Your task to perform on an android device: Open ESPN.com Image 0: 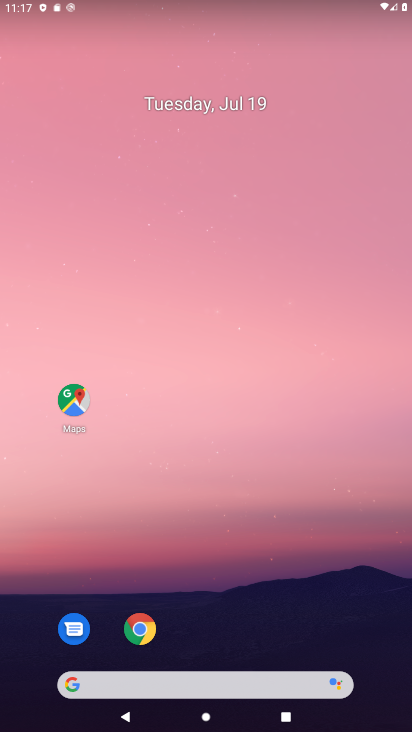
Step 0: drag from (316, 582) to (318, 82)
Your task to perform on an android device: Open ESPN.com Image 1: 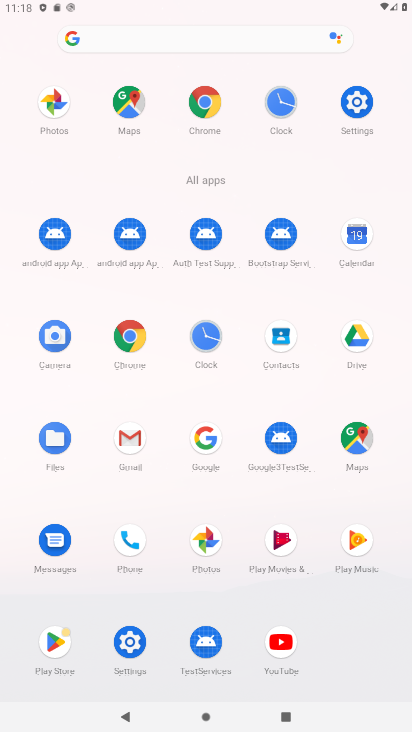
Step 1: click (133, 341)
Your task to perform on an android device: Open ESPN.com Image 2: 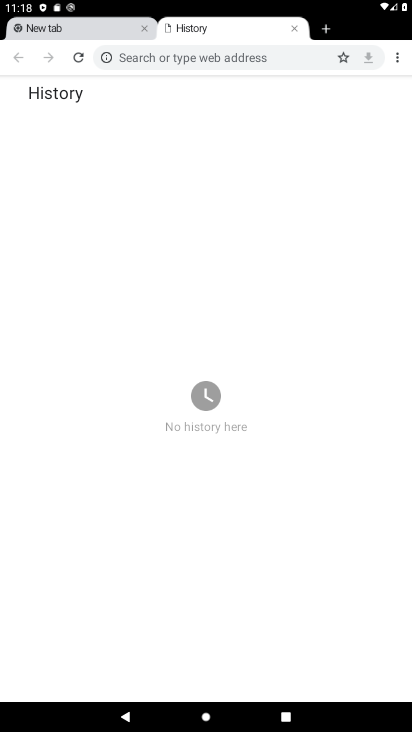
Step 2: click (235, 50)
Your task to perform on an android device: Open ESPN.com Image 3: 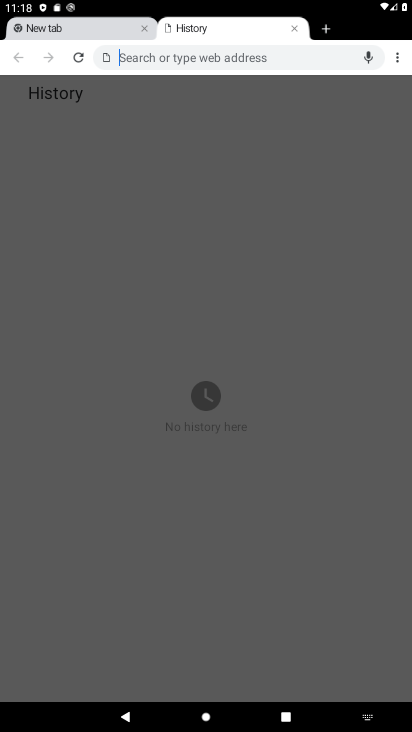
Step 3: type "espn.com"
Your task to perform on an android device: Open ESPN.com Image 4: 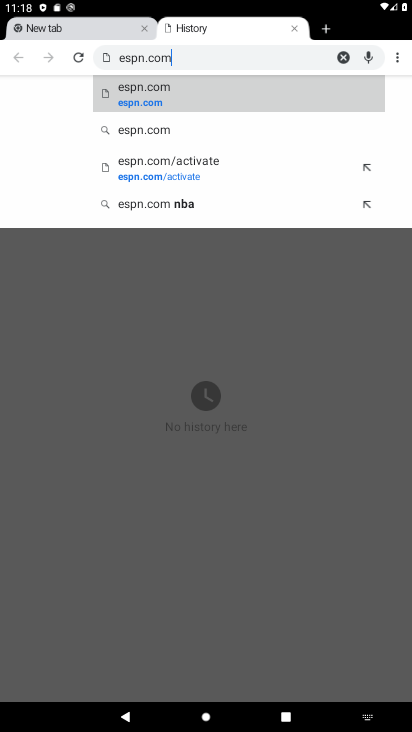
Step 4: click (153, 93)
Your task to perform on an android device: Open ESPN.com Image 5: 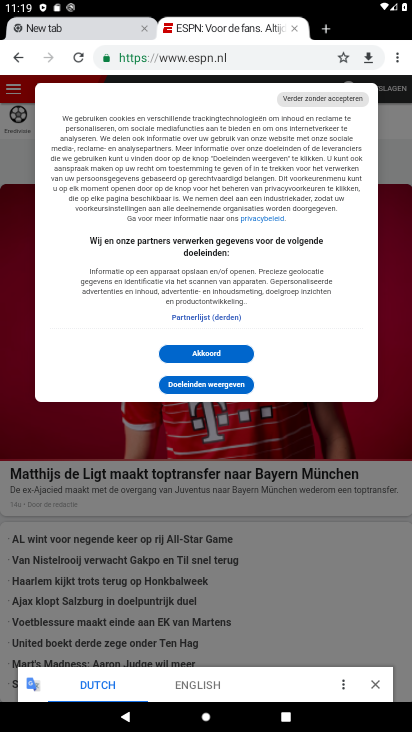
Step 5: task complete